Your task to perform on an android device: Play the last video I watched on Youtube Image 0: 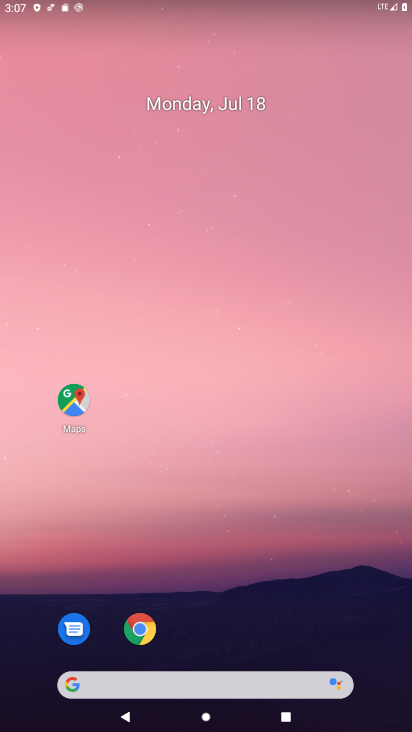
Step 0: drag from (227, 604) to (245, 8)
Your task to perform on an android device: Play the last video I watched on Youtube Image 1: 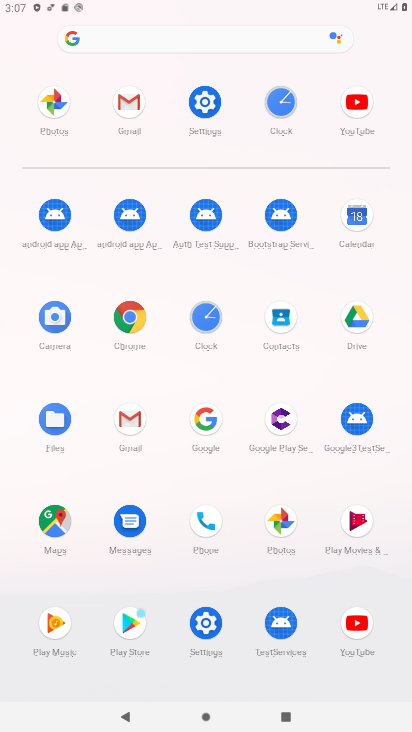
Step 1: click (360, 632)
Your task to perform on an android device: Play the last video I watched on Youtube Image 2: 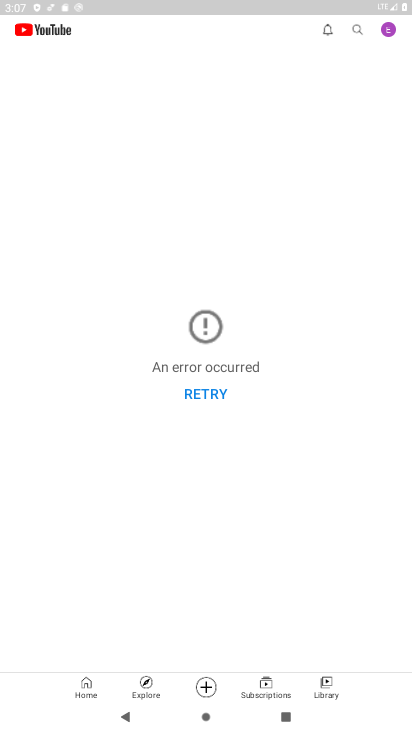
Step 2: click (203, 382)
Your task to perform on an android device: Play the last video I watched on Youtube Image 3: 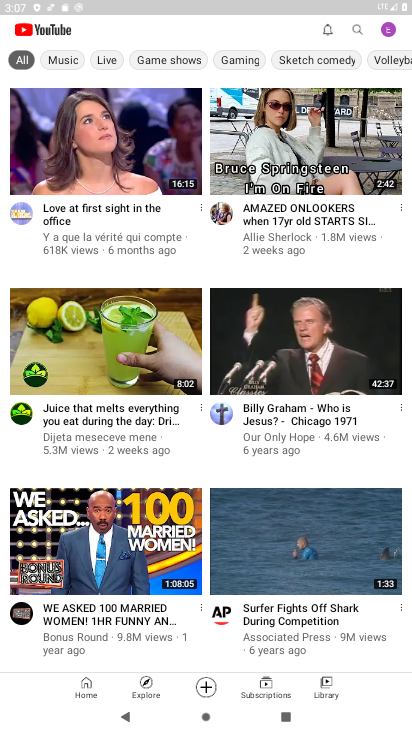
Step 3: click (334, 690)
Your task to perform on an android device: Play the last video I watched on Youtube Image 4: 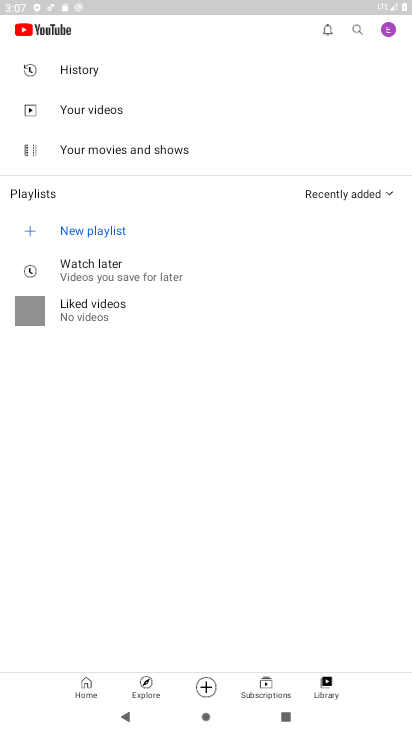
Step 4: click (88, 79)
Your task to perform on an android device: Play the last video I watched on Youtube Image 5: 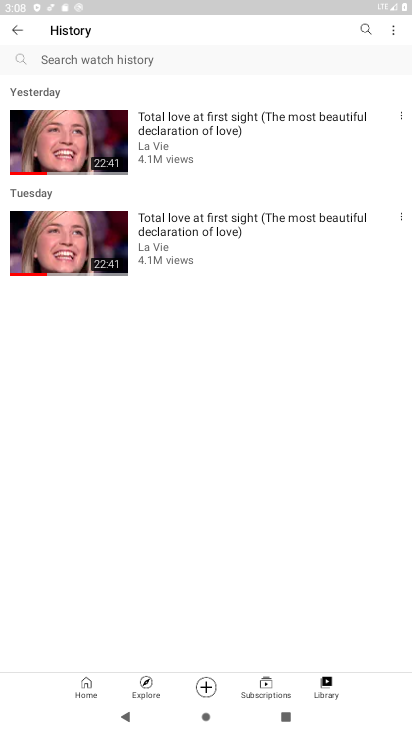
Step 5: click (161, 154)
Your task to perform on an android device: Play the last video I watched on Youtube Image 6: 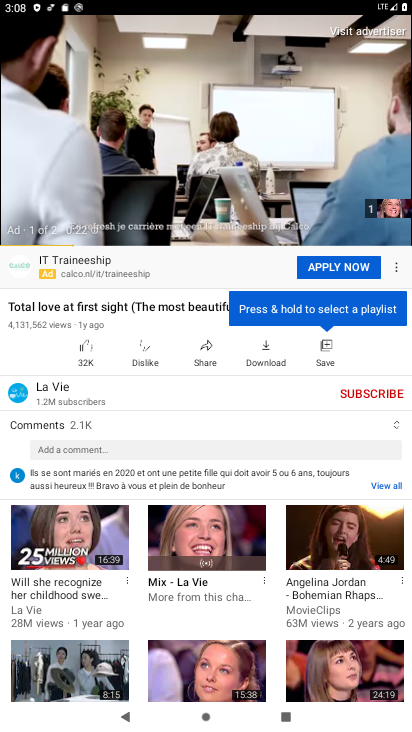
Step 6: task complete